Your task to perform on an android device: Open Wikipedia Image 0: 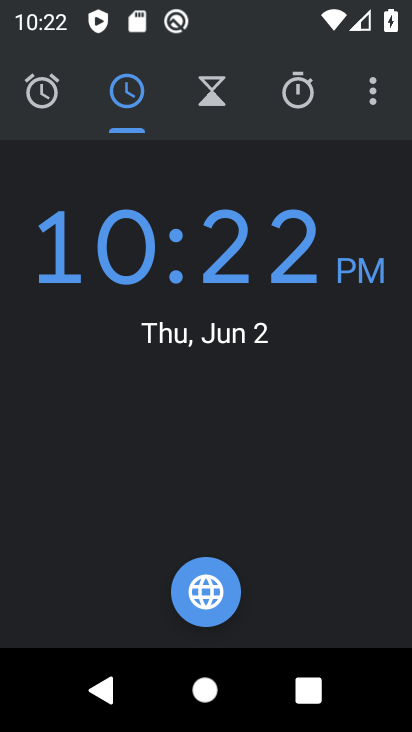
Step 0: press home button
Your task to perform on an android device: Open Wikipedia Image 1: 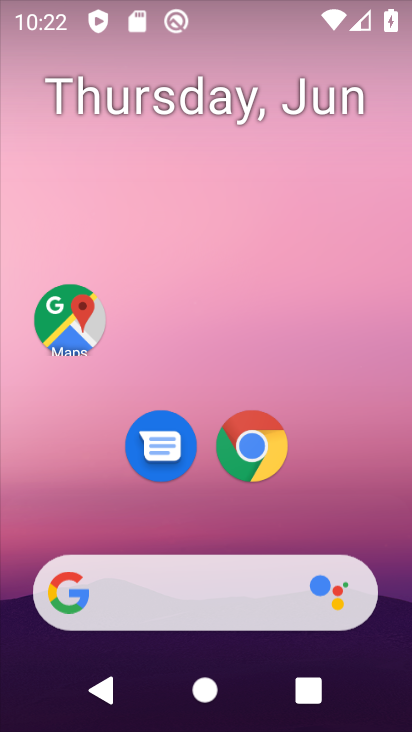
Step 1: click (253, 439)
Your task to perform on an android device: Open Wikipedia Image 2: 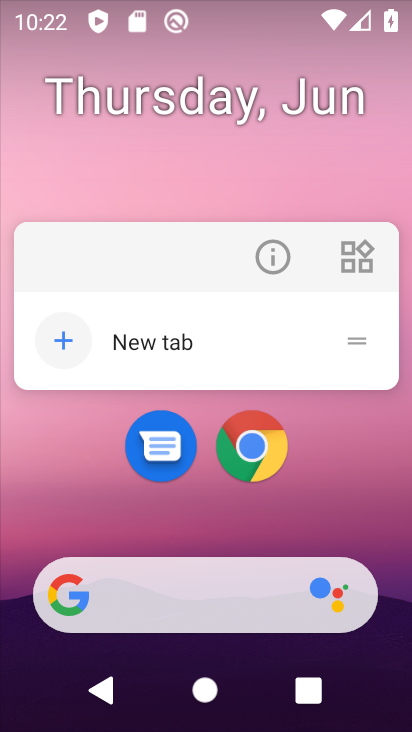
Step 2: click (249, 441)
Your task to perform on an android device: Open Wikipedia Image 3: 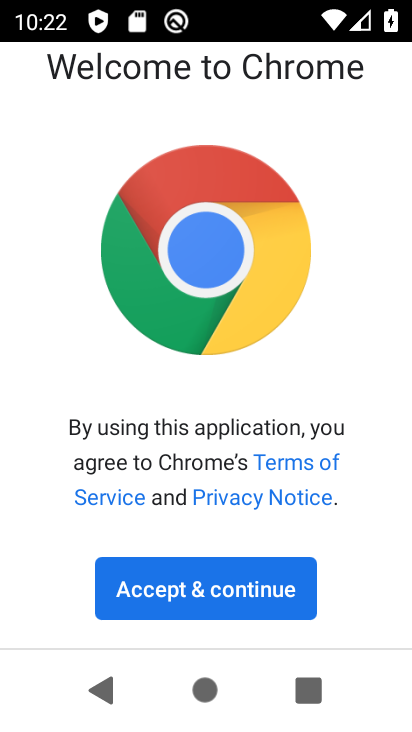
Step 3: click (242, 612)
Your task to perform on an android device: Open Wikipedia Image 4: 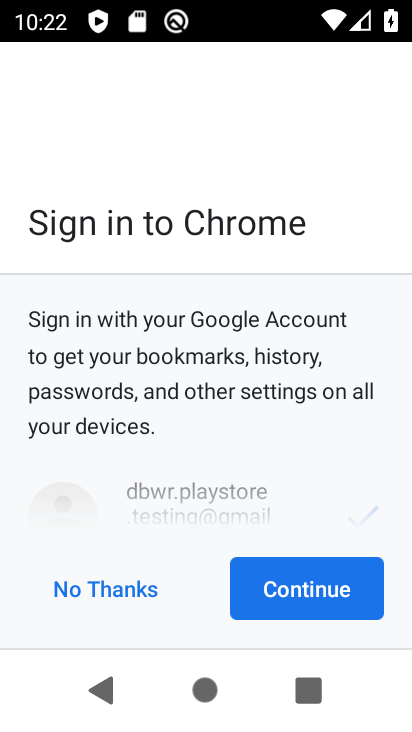
Step 4: click (292, 582)
Your task to perform on an android device: Open Wikipedia Image 5: 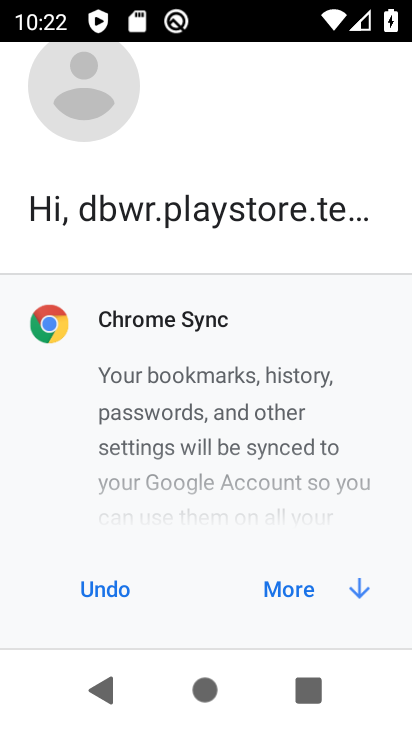
Step 5: click (294, 587)
Your task to perform on an android device: Open Wikipedia Image 6: 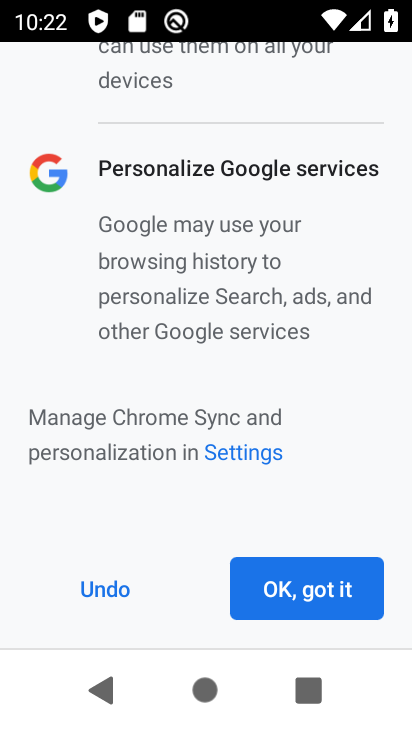
Step 6: click (294, 587)
Your task to perform on an android device: Open Wikipedia Image 7: 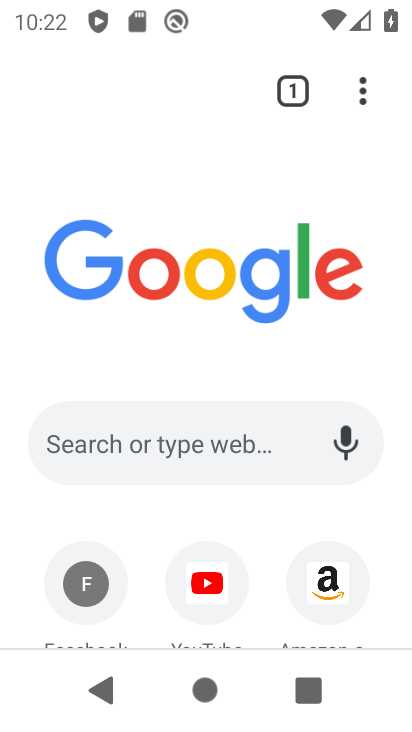
Step 7: click (195, 429)
Your task to perform on an android device: Open Wikipedia Image 8: 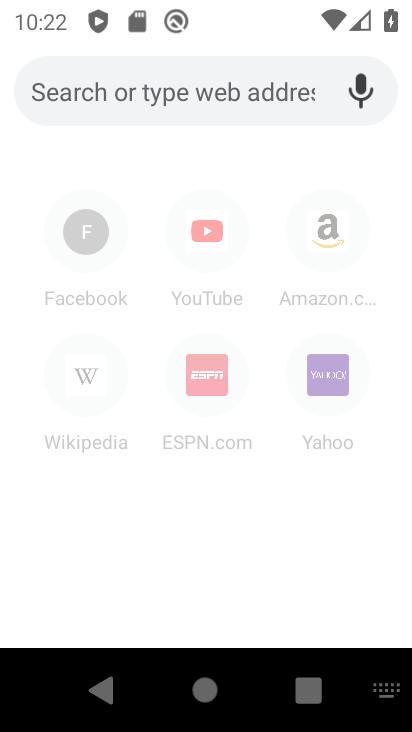
Step 8: type "wikipedia"
Your task to perform on an android device: Open Wikipedia Image 9: 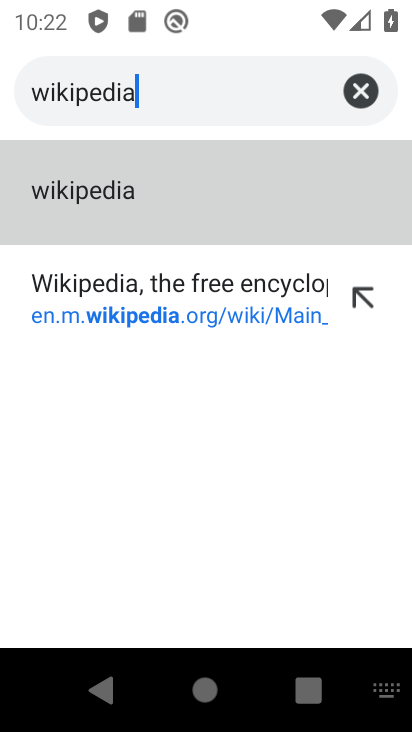
Step 9: click (109, 314)
Your task to perform on an android device: Open Wikipedia Image 10: 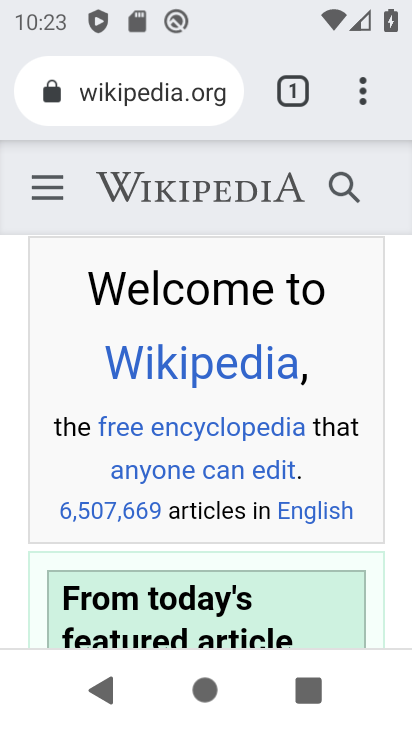
Step 10: task complete